Your task to perform on an android device: Open Google Image 0: 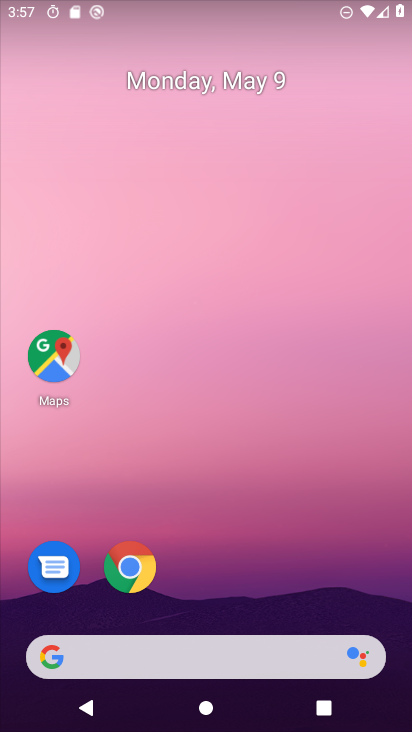
Step 0: drag from (231, 571) to (217, 23)
Your task to perform on an android device: Open Google Image 1: 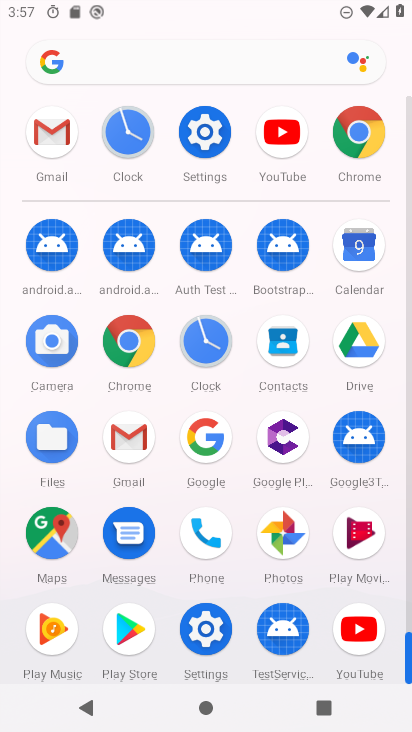
Step 1: click (204, 423)
Your task to perform on an android device: Open Google Image 2: 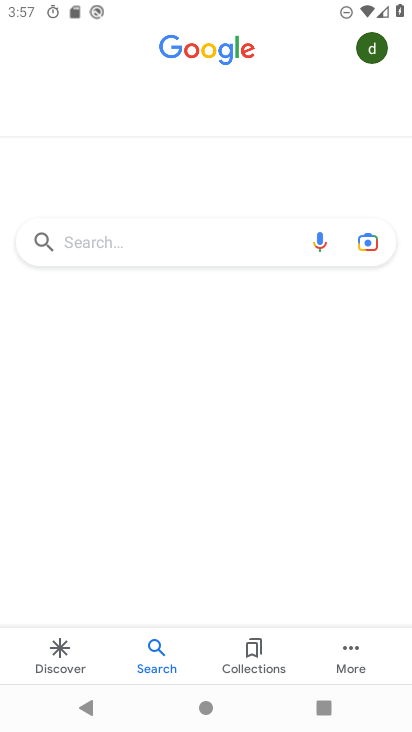
Step 2: task complete